Your task to perform on an android device: move a message to another label in the gmail app Image 0: 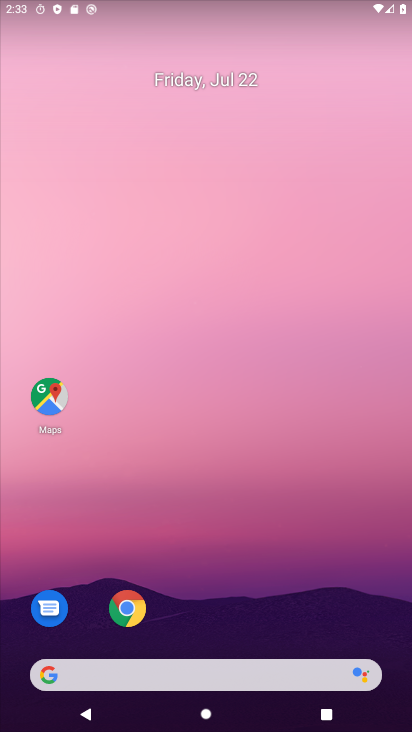
Step 0: drag from (261, 527) to (276, 111)
Your task to perform on an android device: move a message to another label in the gmail app Image 1: 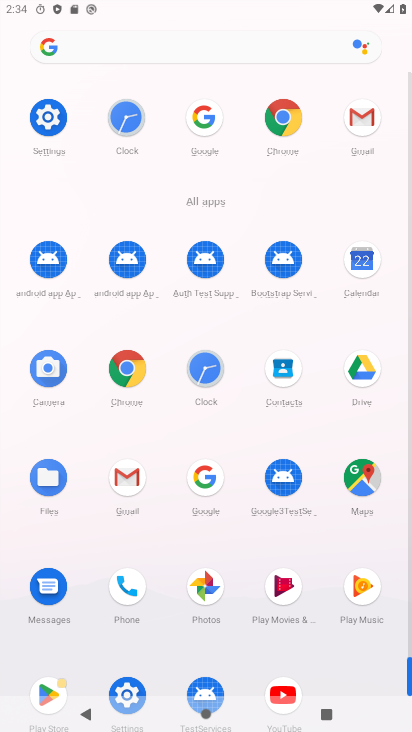
Step 1: click (356, 117)
Your task to perform on an android device: move a message to another label in the gmail app Image 2: 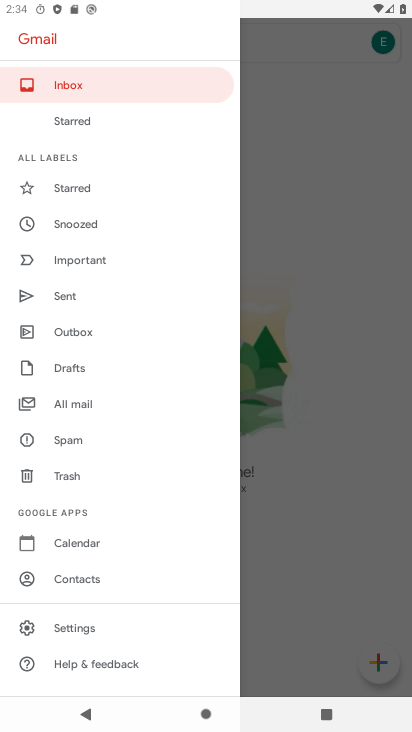
Step 2: click (294, 266)
Your task to perform on an android device: move a message to another label in the gmail app Image 3: 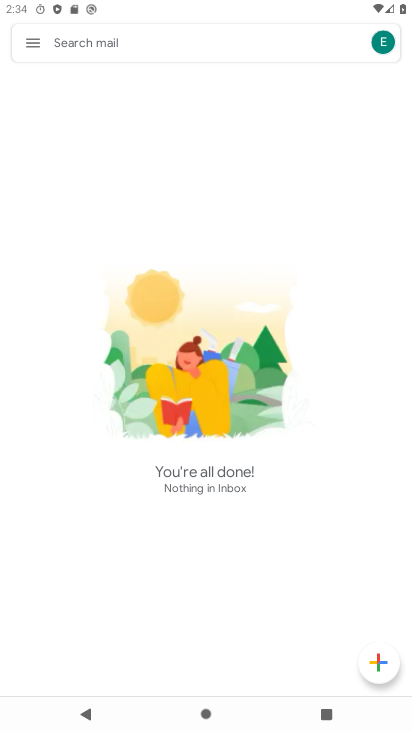
Step 3: task complete